Your task to perform on an android device: open a bookmark in the chrome app Image 0: 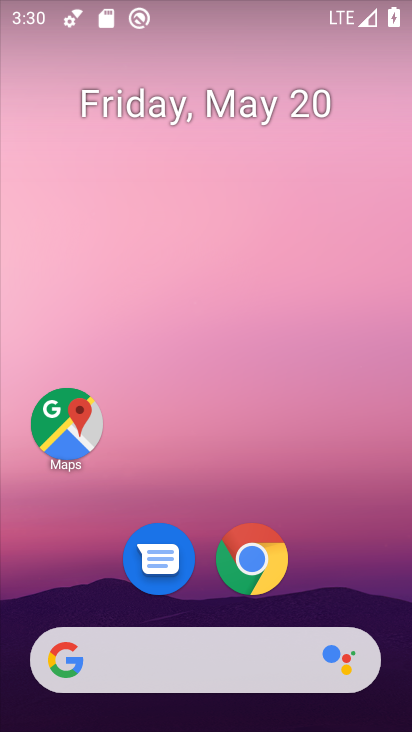
Step 0: click (262, 560)
Your task to perform on an android device: open a bookmark in the chrome app Image 1: 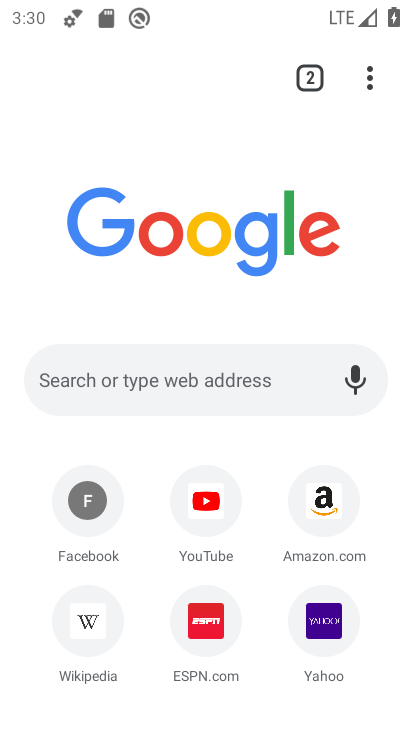
Step 1: click (366, 85)
Your task to perform on an android device: open a bookmark in the chrome app Image 2: 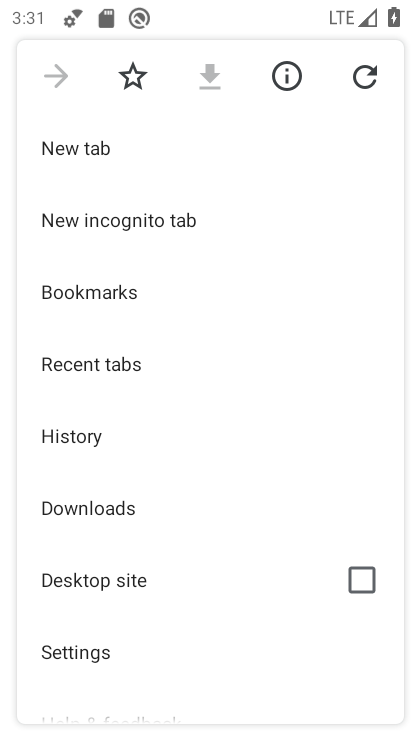
Step 2: click (145, 289)
Your task to perform on an android device: open a bookmark in the chrome app Image 3: 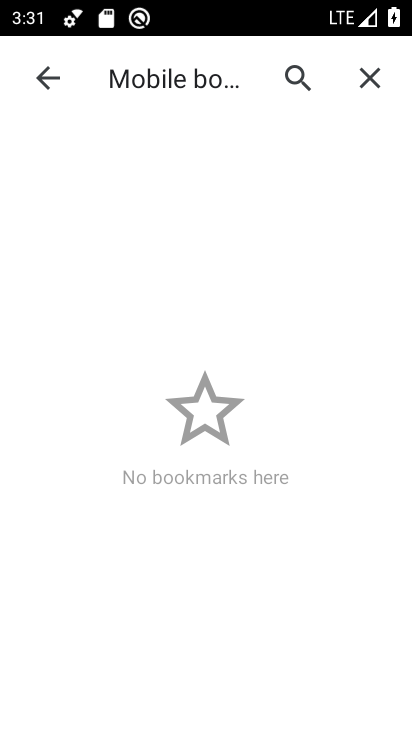
Step 3: task complete